Your task to perform on an android device: Go to battery settings Image 0: 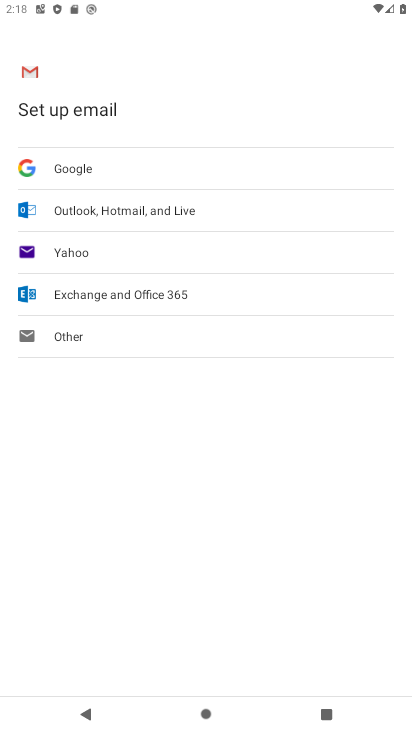
Step 0: press home button
Your task to perform on an android device: Go to battery settings Image 1: 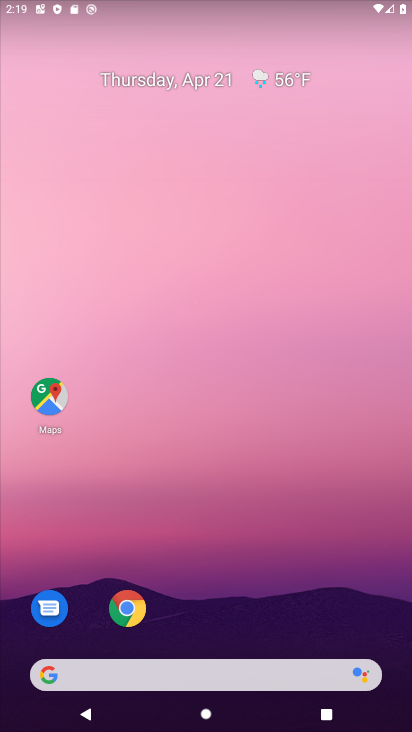
Step 1: drag from (238, 529) to (188, 154)
Your task to perform on an android device: Go to battery settings Image 2: 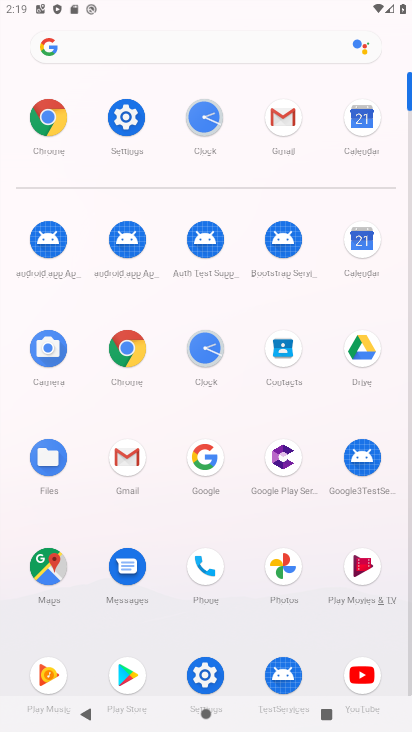
Step 2: click (127, 114)
Your task to perform on an android device: Go to battery settings Image 3: 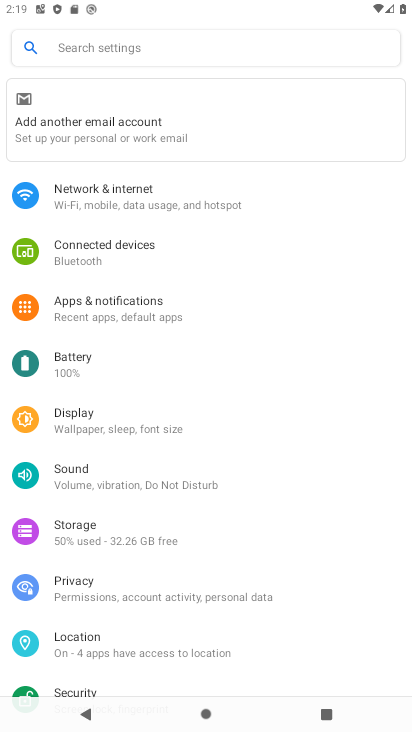
Step 3: click (92, 357)
Your task to perform on an android device: Go to battery settings Image 4: 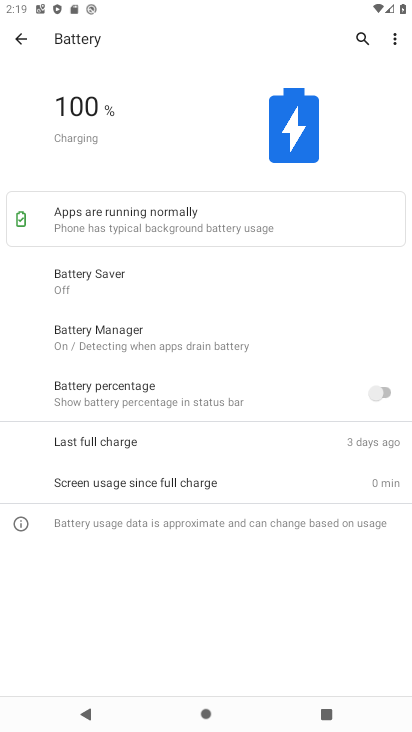
Step 4: task complete